Your task to perform on an android device: Open Reddit.com Image 0: 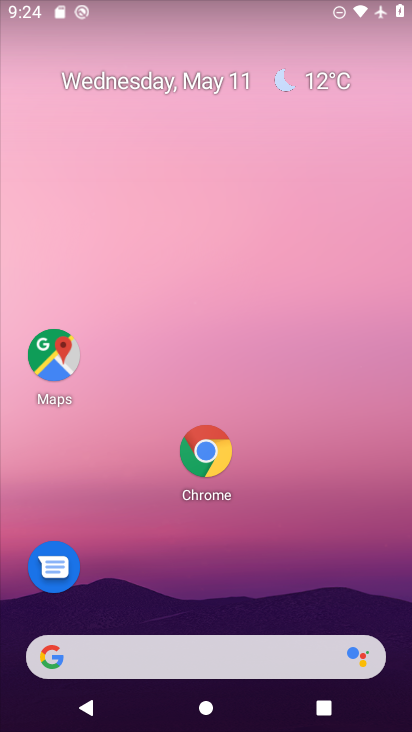
Step 0: press home button
Your task to perform on an android device: Open Reddit.com Image 1: 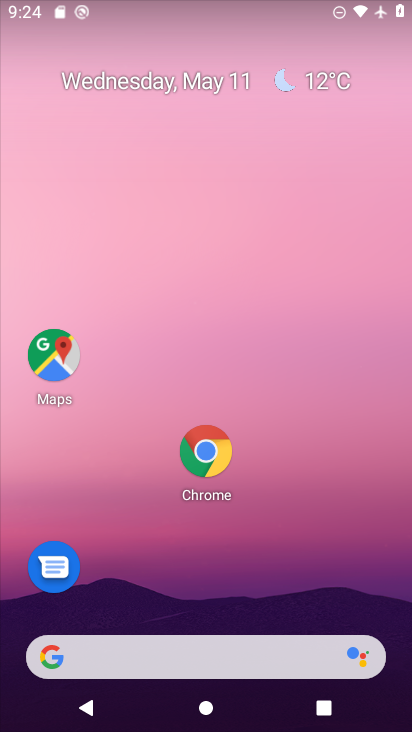
Step 1: click (207, 450)
Your task to perform on an android device: Open Reddit.com Image 2: 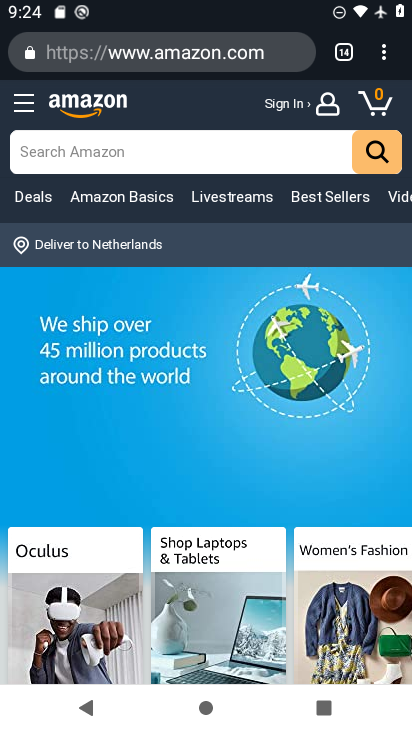
Step 2: drag from (381, 54) to (325, 95)
Your task to perform on an android device: Open Reddit.com Image 3: 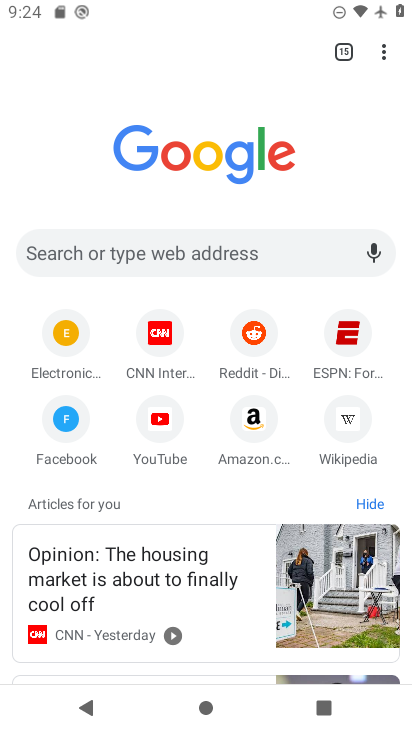
Step 3: click (243, 330)
Your task to perform on an android device: Open Reddit.com Image 4: 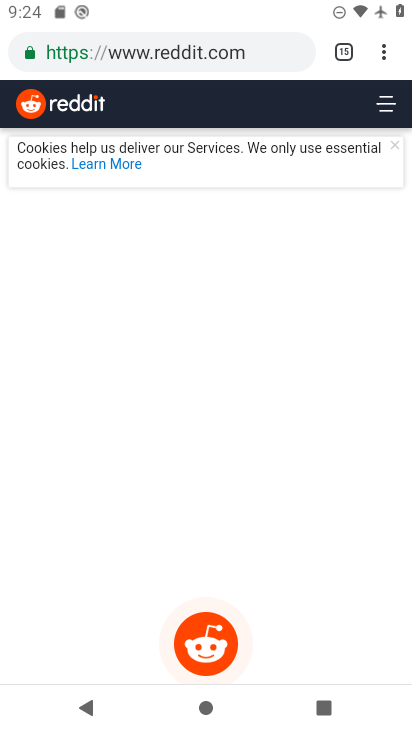
Step 4: task complete